Your task to perform on an android device: open app "Viber Messenger" (install if not already installed) Image 0: 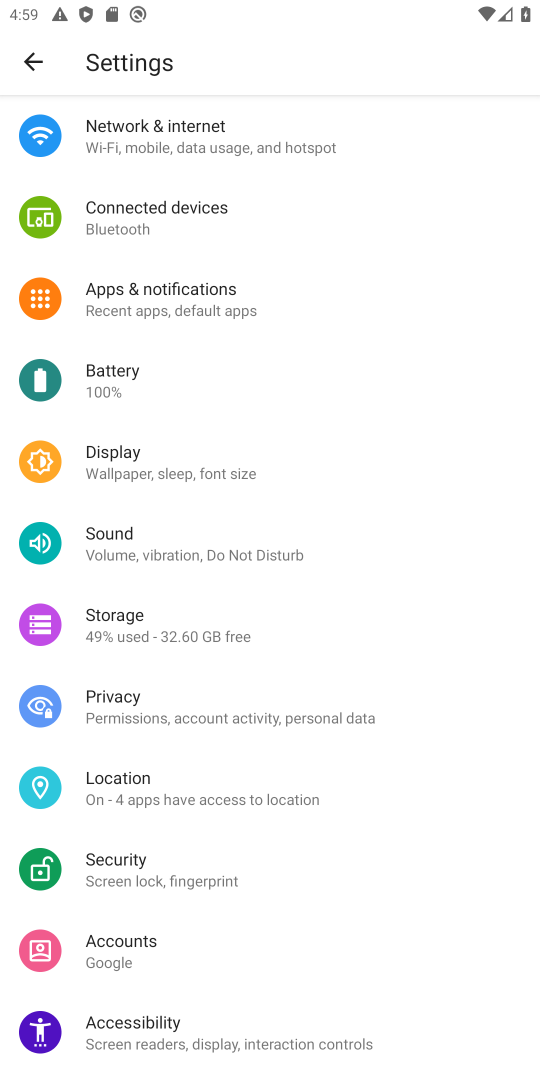
Step 0: press home button
Your task to perform on an android device: open app "Viber Messenger" (install if not already installed) Image 1: 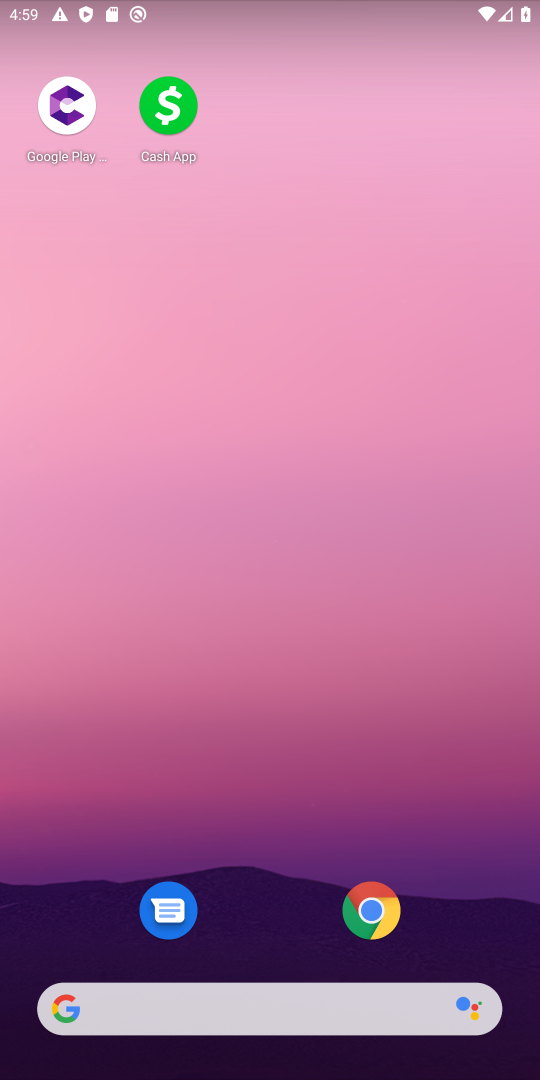
Step 1: drag from (284, 983) to (17, 111)
Your task to perform on an android device: open app "Viber Messenger" (install if not already installed) Image 2: 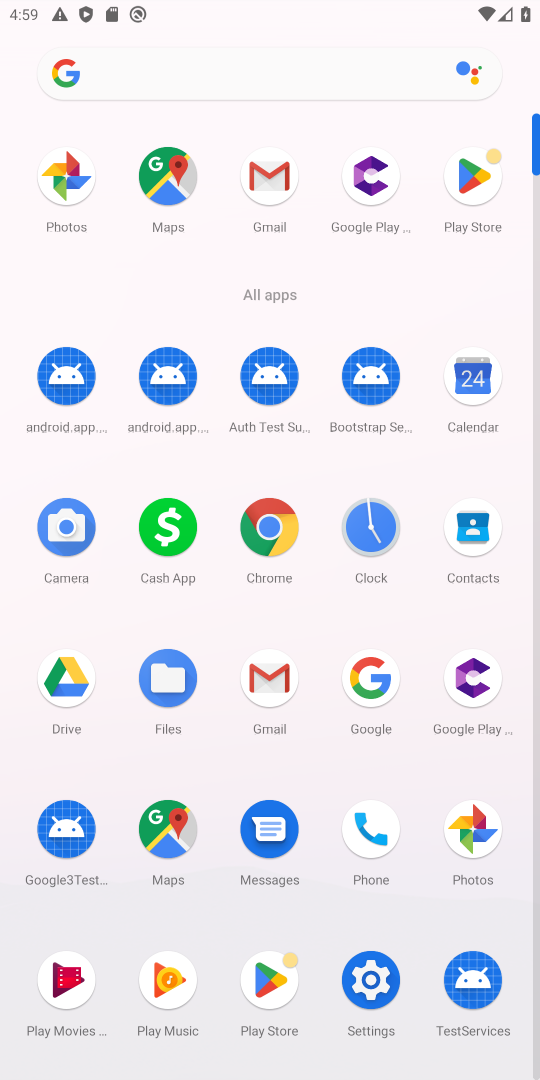
Step 2: click (486, 193)
Your task to perform on an android device: open app "Viber Messenger" (install if not already installed) Image 3: 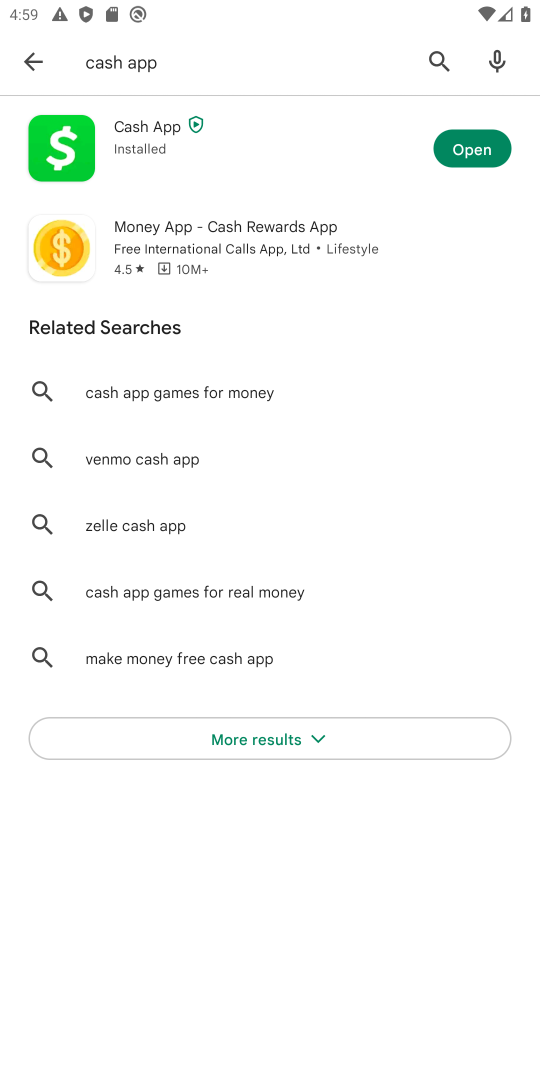
Step 3: click (435, 52)
Your task to perform on an android device: open app "Viber Messenger" (install if not already installed) Image 4: 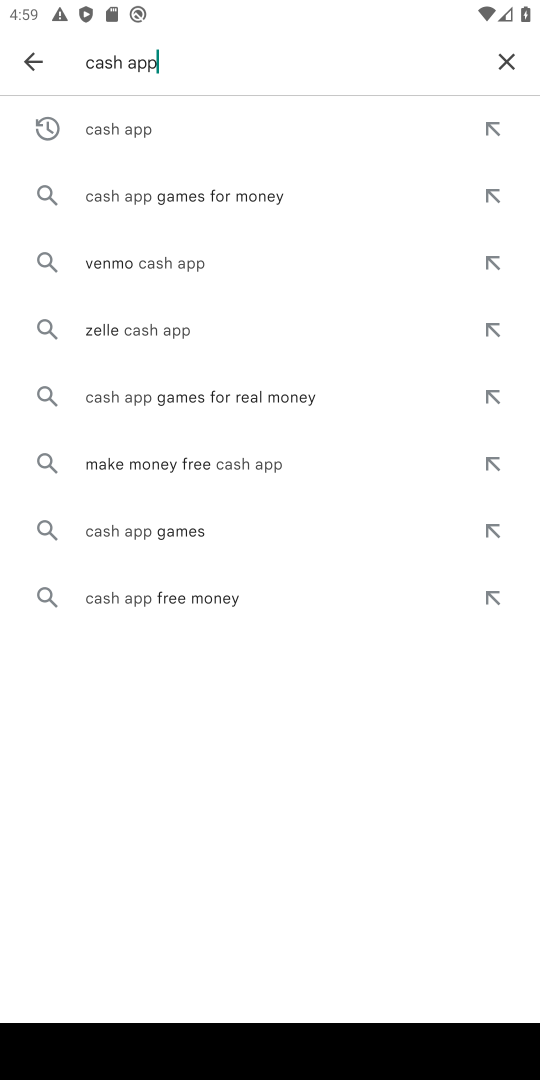
Step 4: click (495, 67)
Your task to perform on an android device: open app "Viber Messenger" (install if not already installed) Image 5: 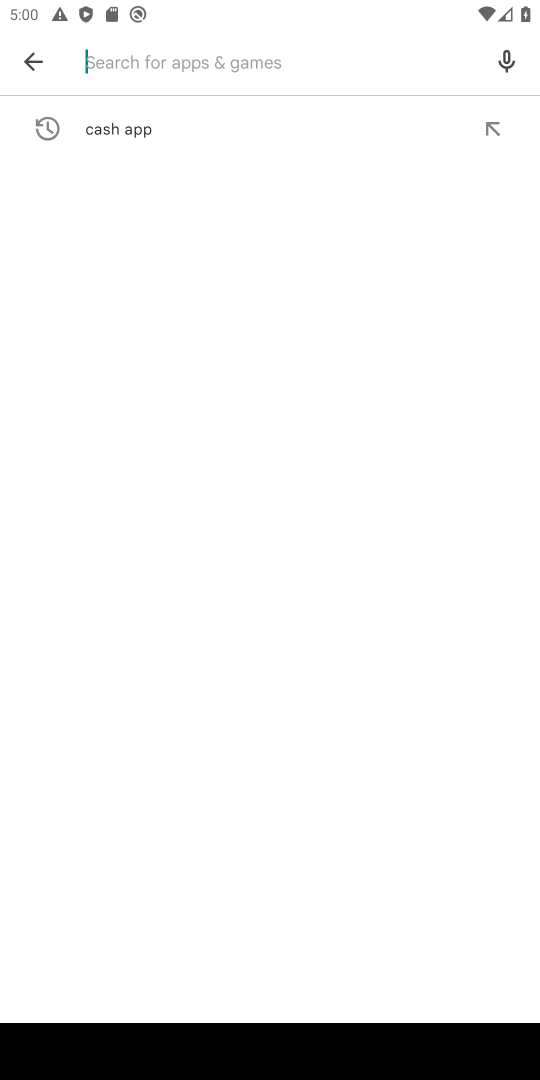
Step 5: type "viber"
Your task to perform on an android device: open app "Viber Messenger" (install if not already installed) Image 6: 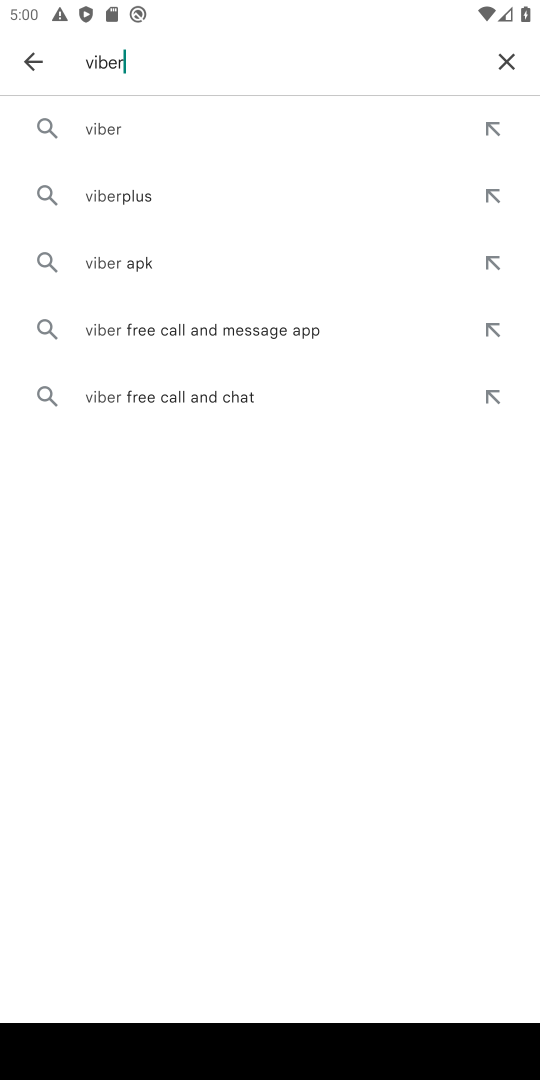
Step 6: click (150, 119)
Your task to perform on an android device: open app "Viber Messenger" (install if not already installed) Image 7: 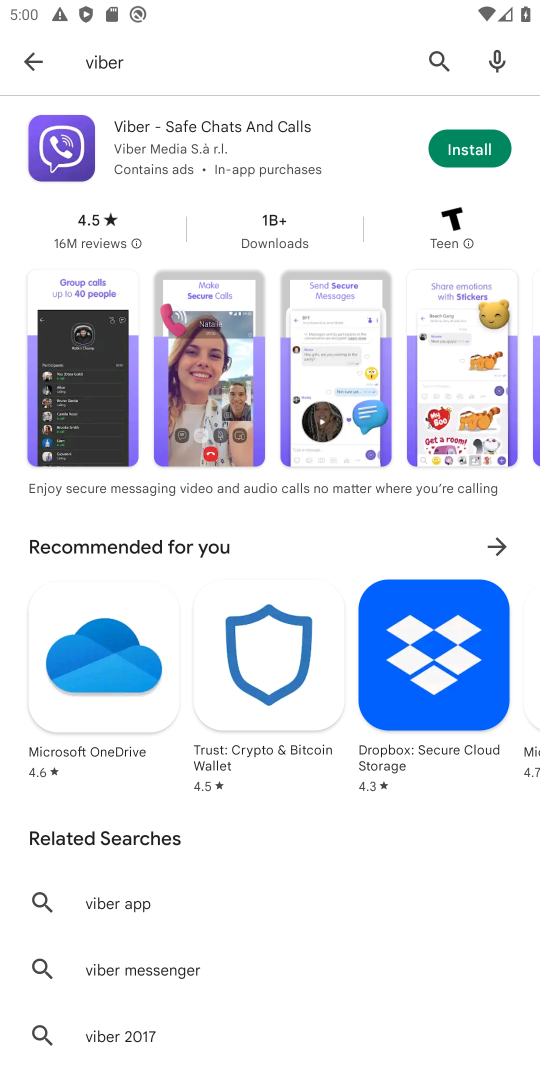
Step 7: click (490, 144)
Your task to perform on an android device: open app "Viber Messenger" (install if not already installed) Image 8: 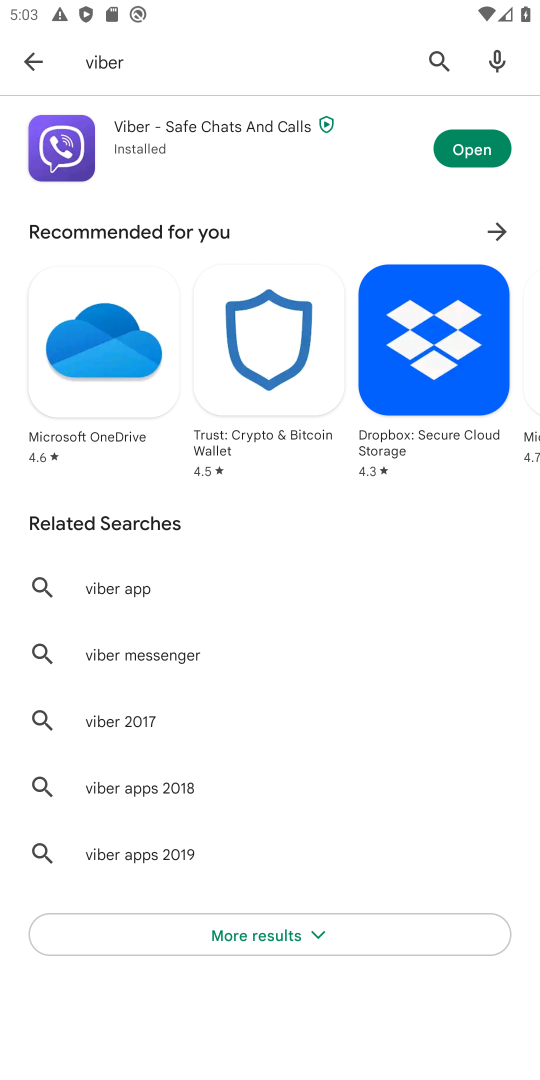
Step 8: click (477, 148)
Your task to perform on an android device: open app "Viber Messenger" (install if not already installed) Image 9: 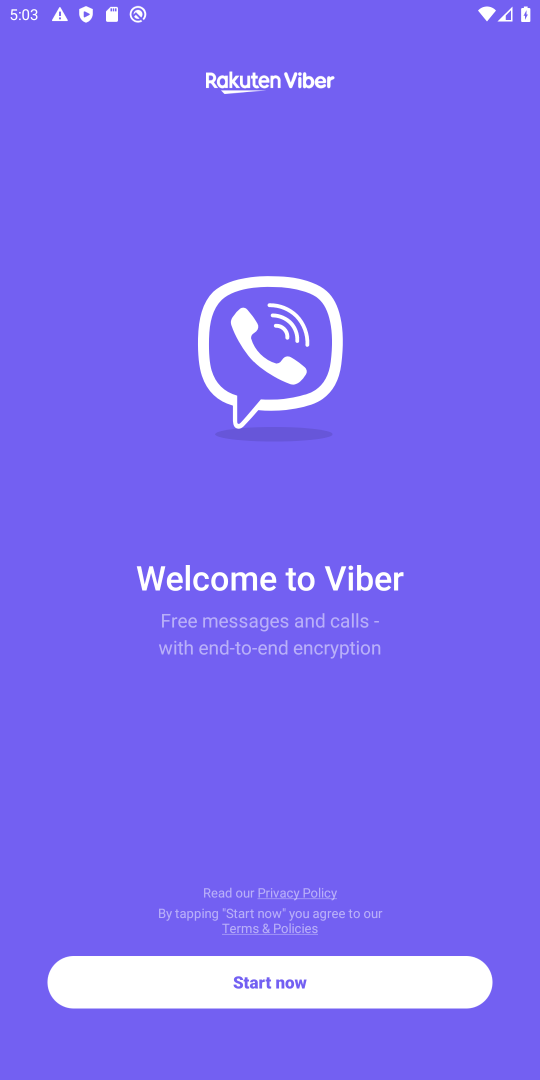
Step 9: task complete